Your task to perform on an android device: Do I have any events today? Image 0: 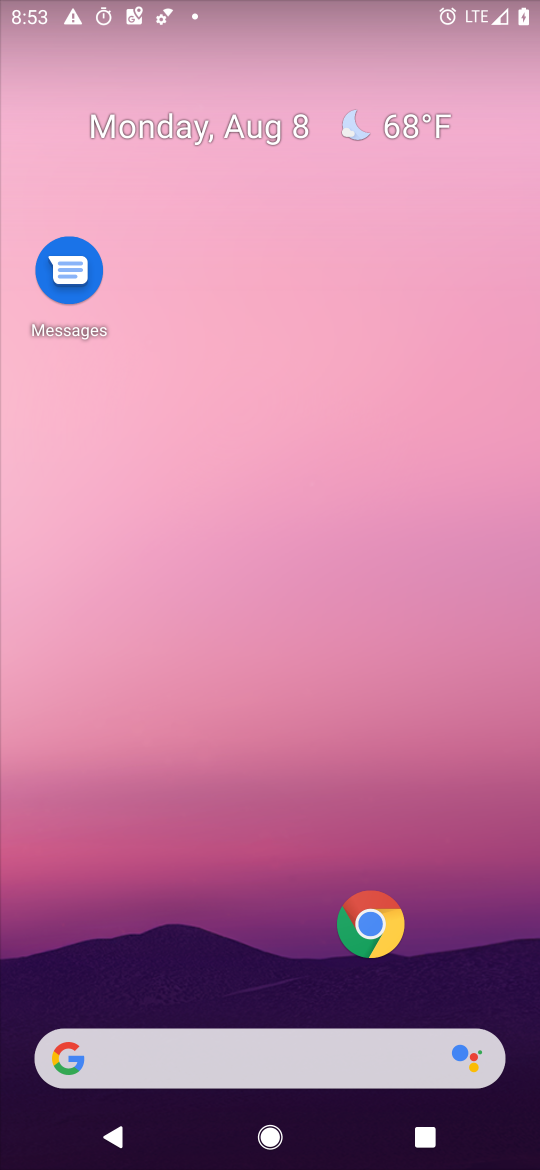
Step 0: drag from (333, 968) to (417, 0)
Your task to perform on an android device: Do I have any events today? Image 1: 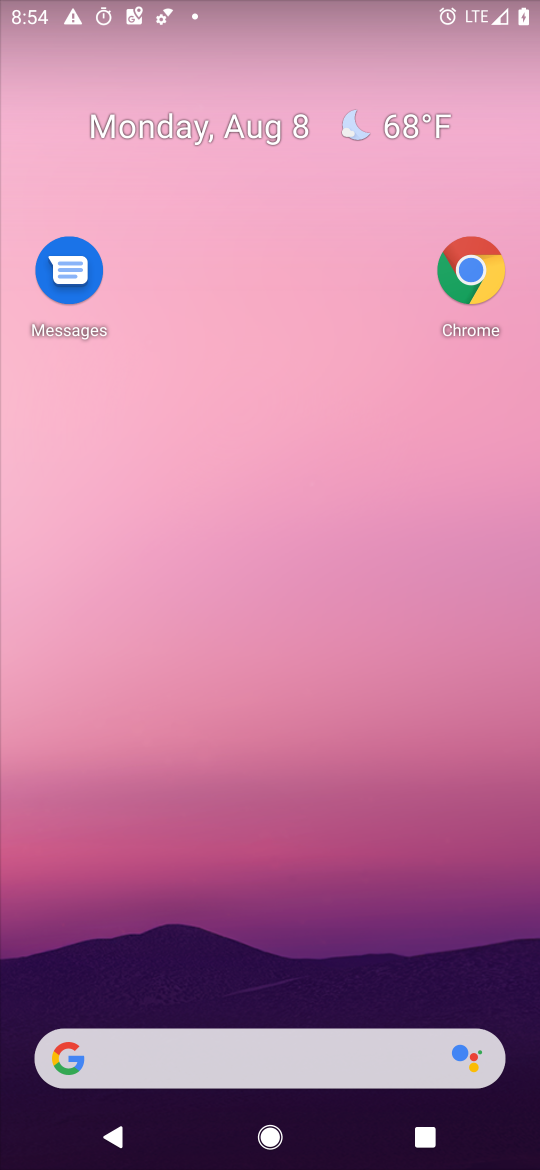
Step 1: drag from (355, 638) to (397, 262)
Your task to perform on an android device: Do I have any events today? Image 2: 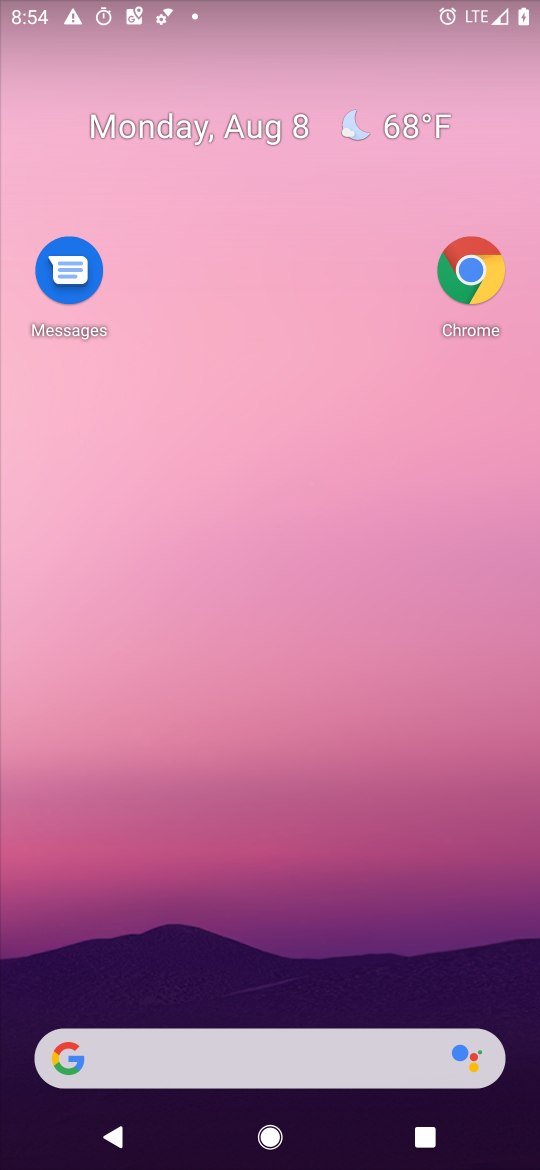
Step 2: click (340, 532)
Your task to perform on an android device: Do I have any events today? Image 3: 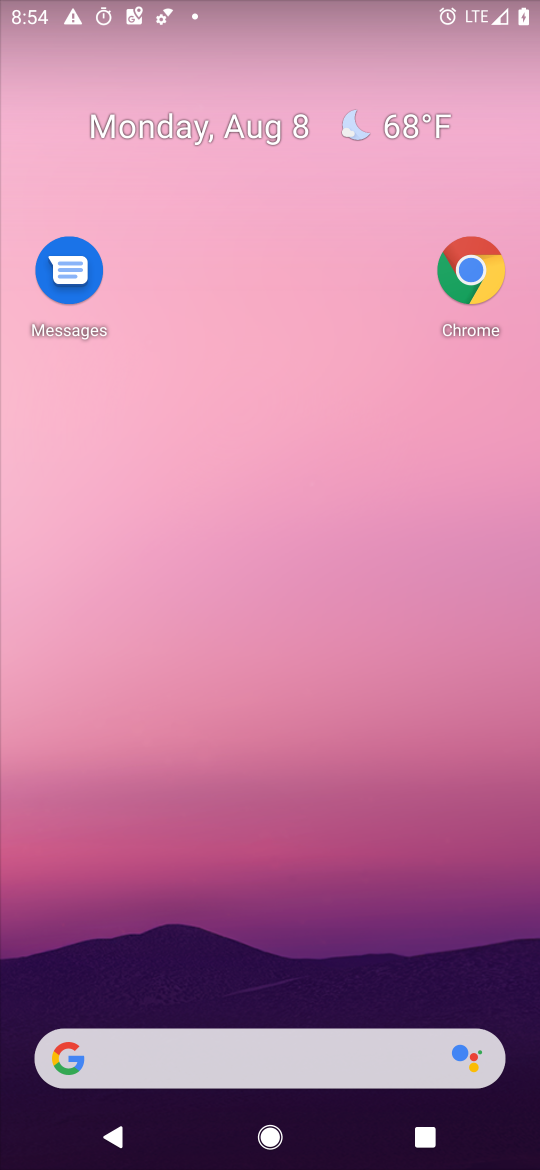
Step 3: drag from (241, 859) to (349, 1)
Your task to perform on an android device: Do I have any events today? Image 4: 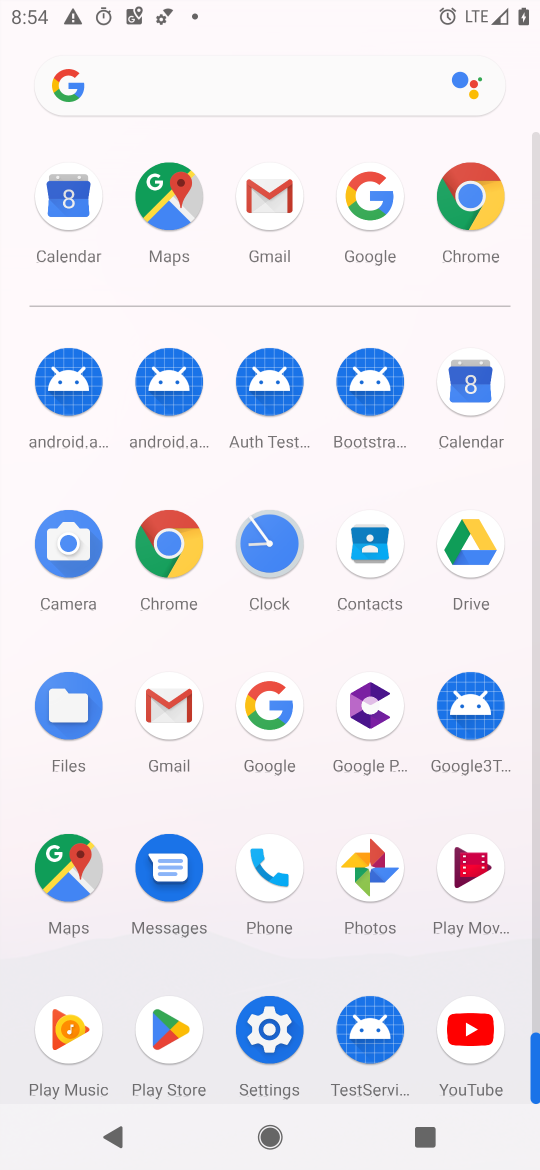
Step 4: click (452, 383)
Your task to perform on an android device: Do I have any events today? Image 5: 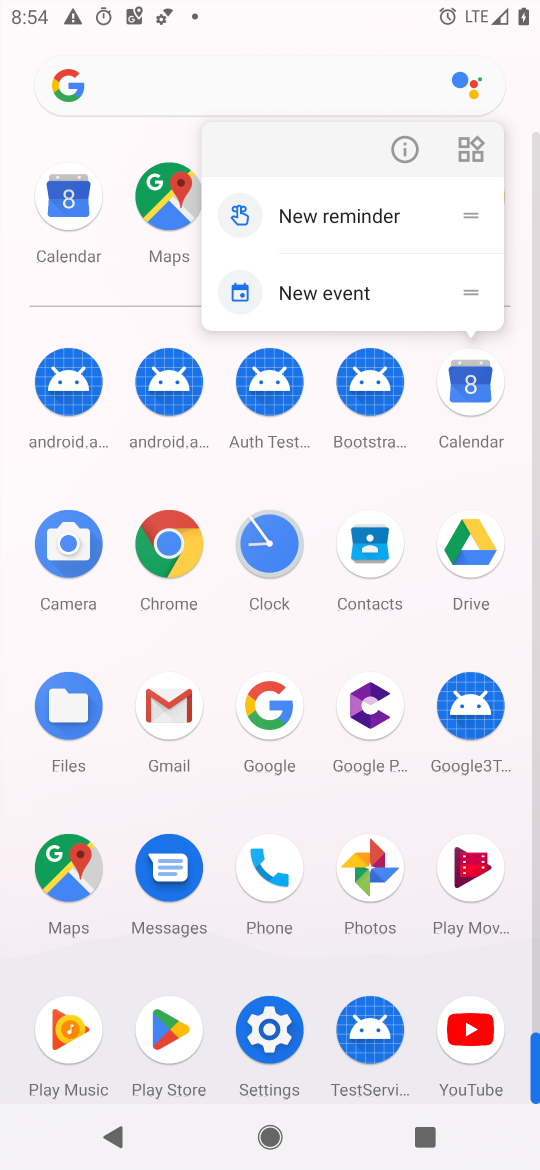
Step 5: click (394, 147)
Your task to perform on an android device: Do I have any events today? Image 6: 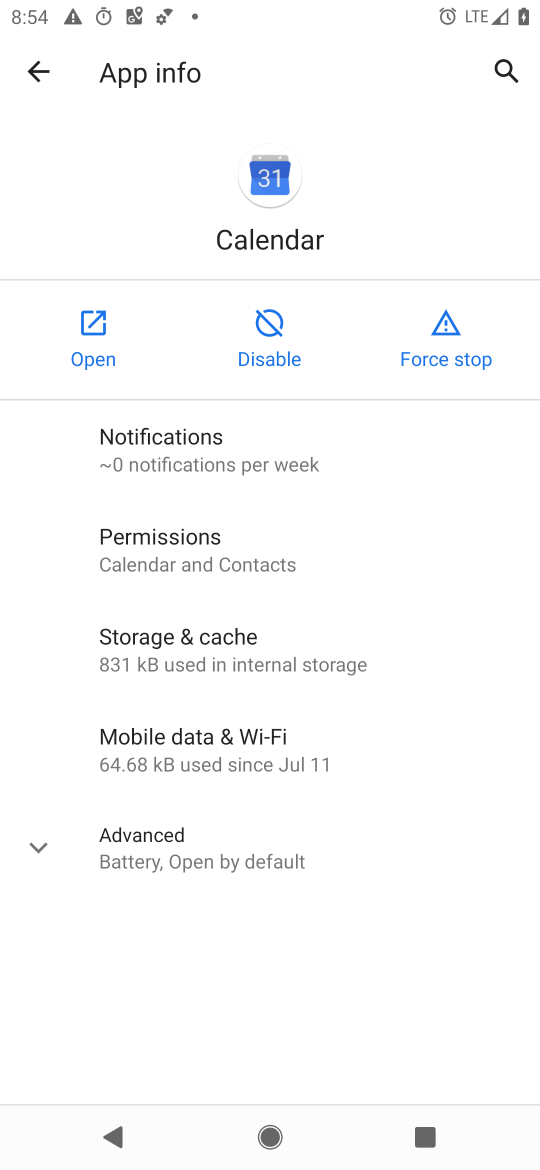
Step 6: click (87, 310)
Your task to perform on an android device: Do I have any events today? Image 7: 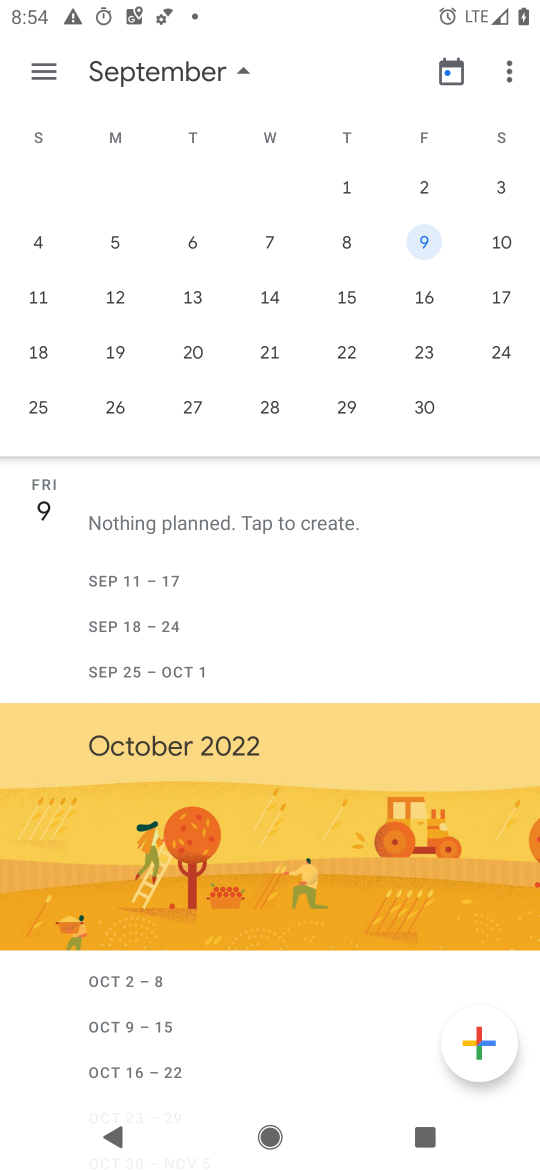
Step 7: click (443, 85)
Your task to perform on an android device: Do I have any events today? Image 8: 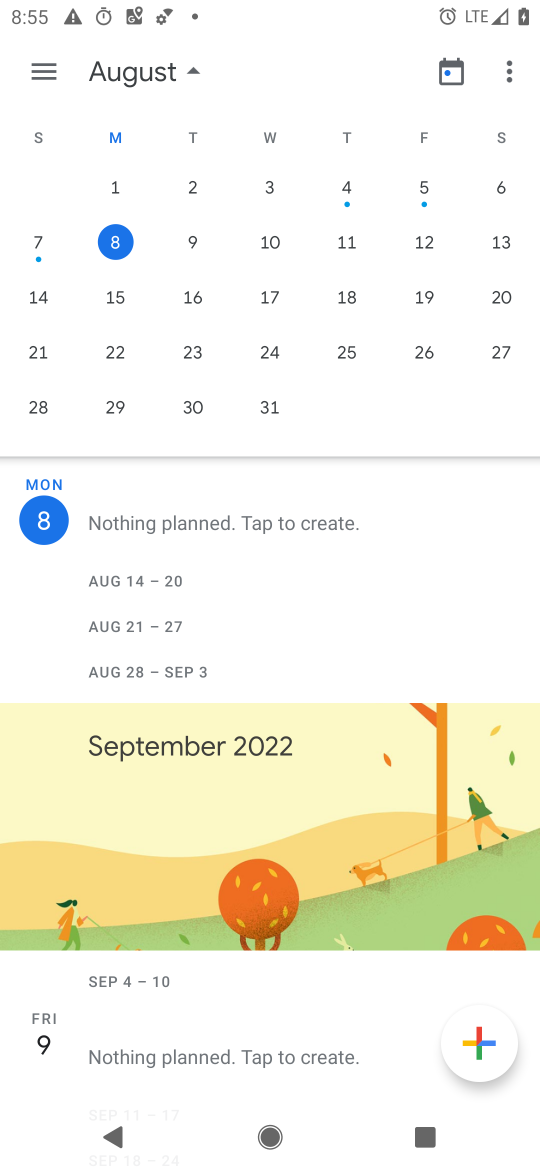
Step 8: click (433, 75)
Your task to perform on an android device: Do I have any events today? Image 9: 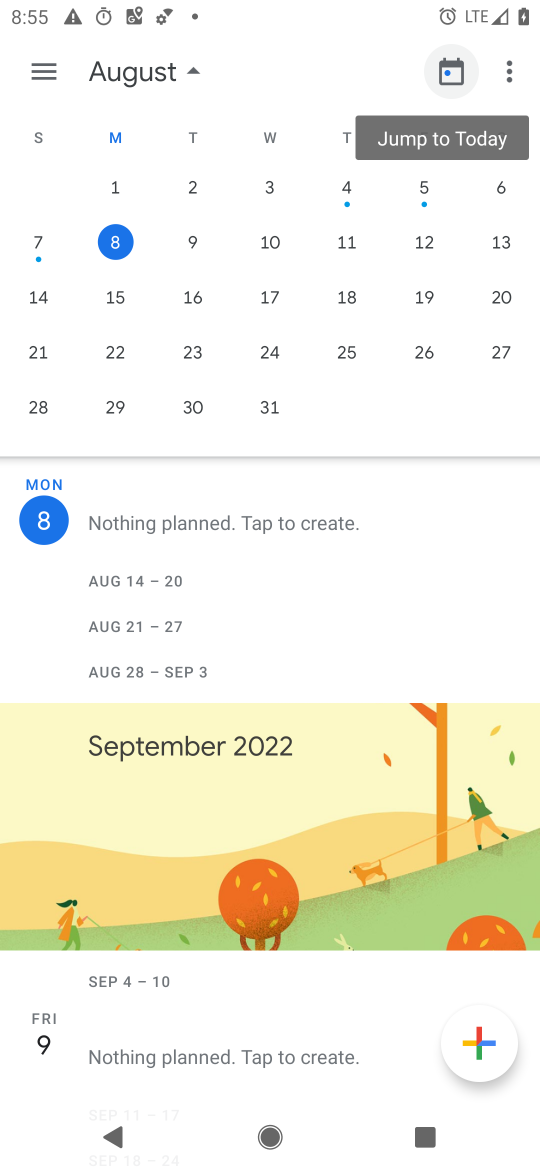
Step 9: click (435, 73)
Your task to perform on an android device: Do I have any events today? Image 10: 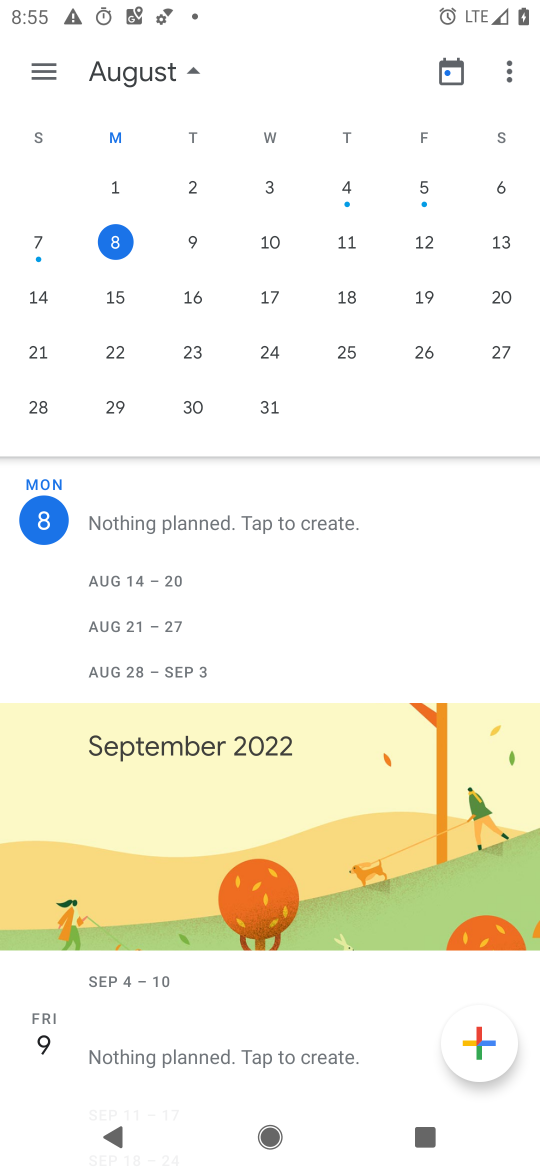
Step 10: click (100, 247)
Your task to perform on an android device: Do I have any events today? Image 11: 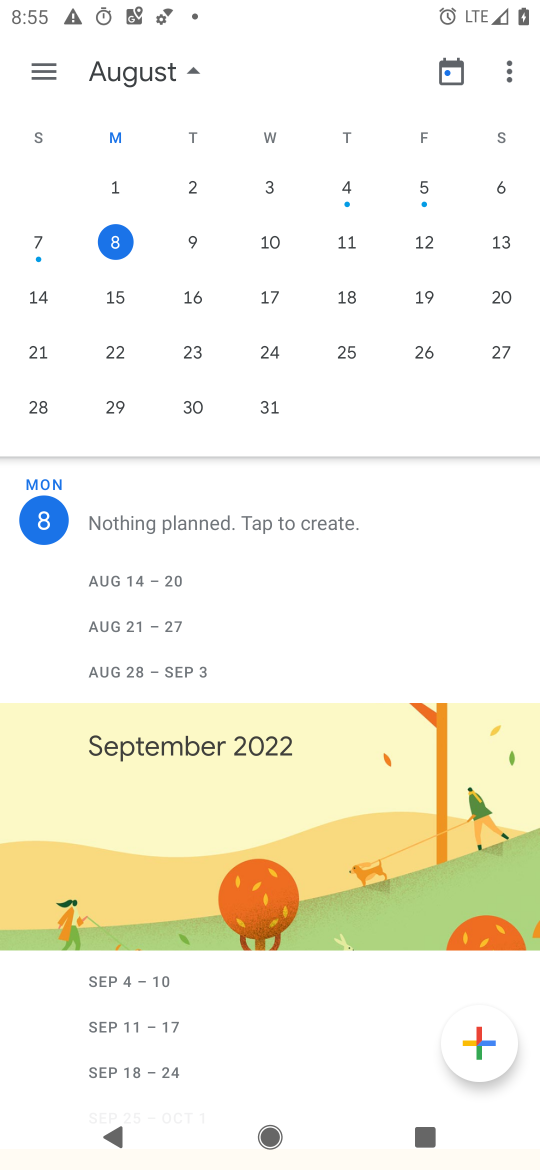
Step 11: task complete